Your task to perform on an android device: toggle improve location accuracy Image 0: 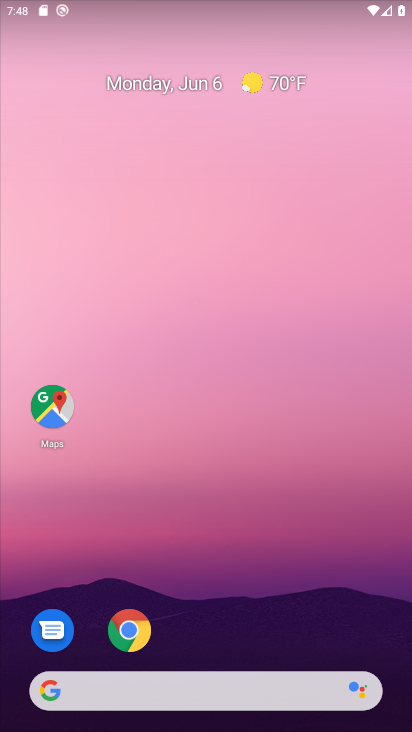
Step 0: drag from (286, 588) to (174, 21)
Your task to perform on an android device: toggle improve location accuracy Image 1: 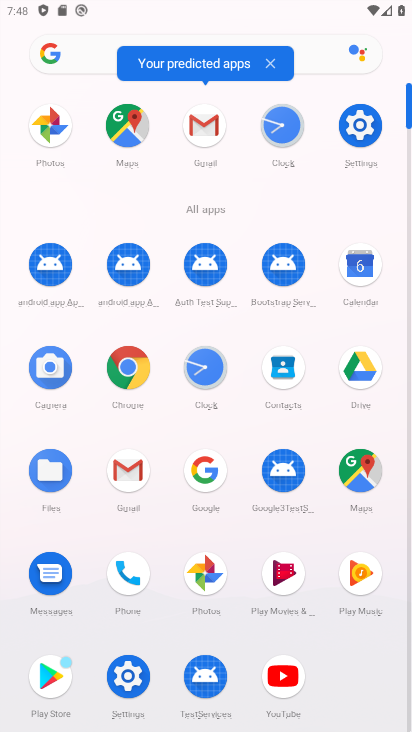
Step 1: click (360, 124)
Your task to perform on an android device: toggle improve location accuracy Image 2: 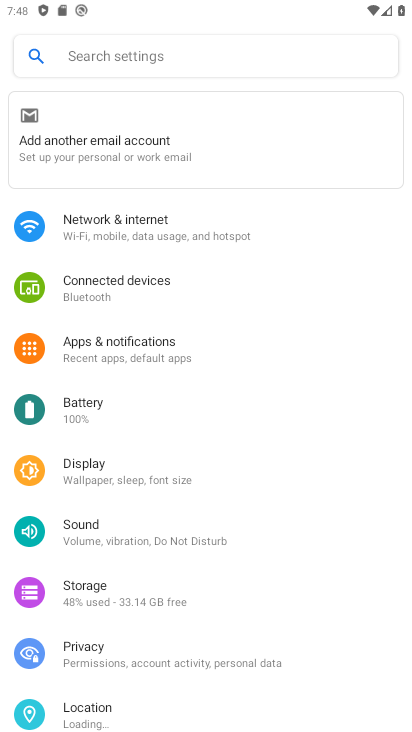
Step 2: drag from (133, 638) to (170, 435)
Your task to perform on an android device: toggle improve location accuracy Image 3: 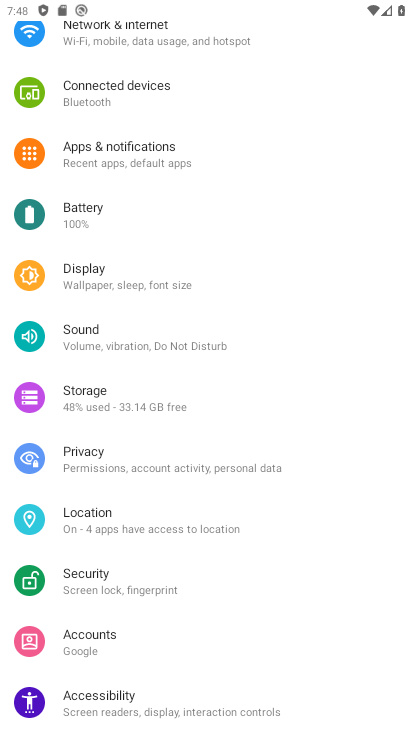
Step 3: click (127, 518)
Your task to perform on an android device: toggle improve location accuracy Image 4: 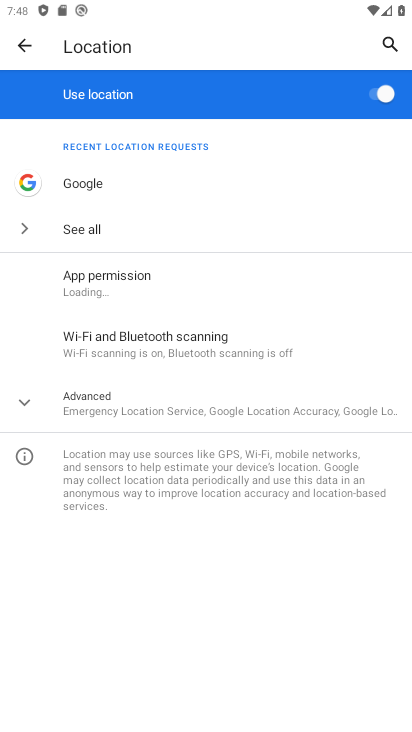
Step 4: click (182, 407)
Your task to perform on an android device: toggle improve location accuracy Image 5: 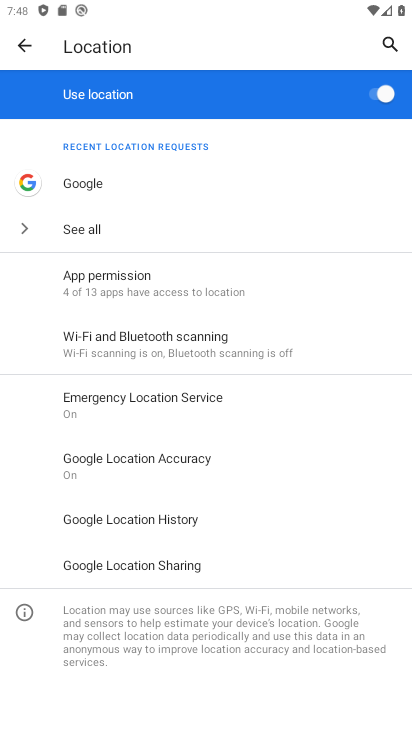
Step 5: click (199, 453)
Your task to perform on an android device: toggle improve location accuracy Image 6: 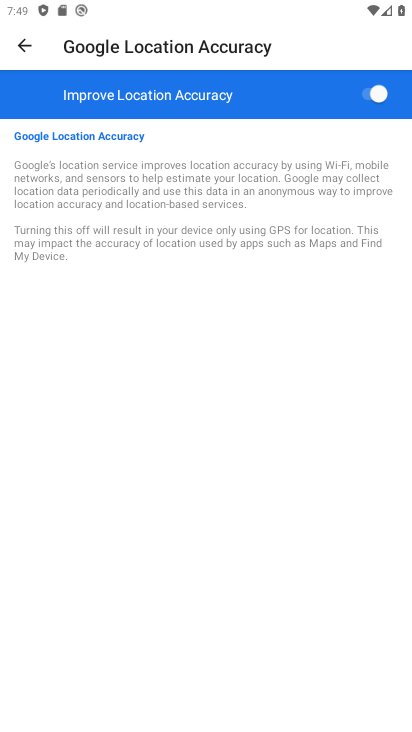
Step 6: click (372, 100)
Your task to perform on an android device: toggle improve location accuracy Image 7: 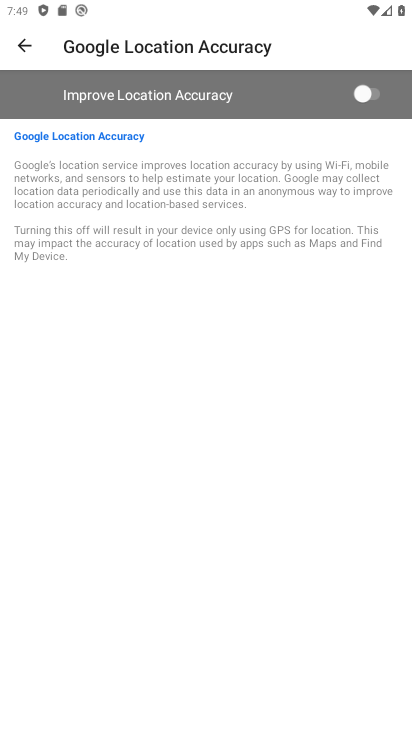
Step 7: task complete